Your task to perform on an android device: toggle improve location accuracy Image 0: 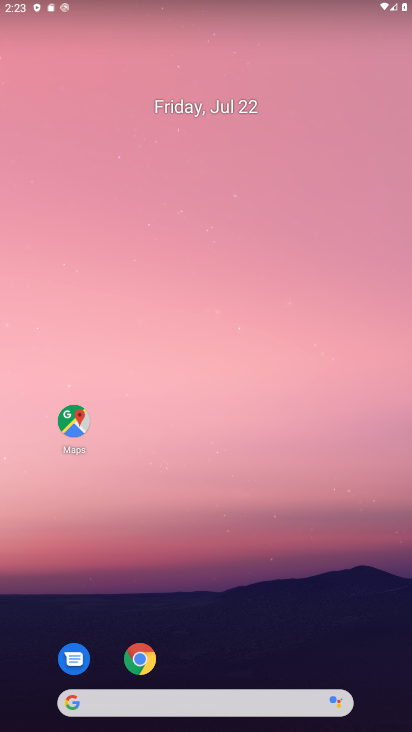
Step 0: drag from (277, 665) to (191, 0)
Your task to perform on an android device: toggle improve location accuracy Image 1: 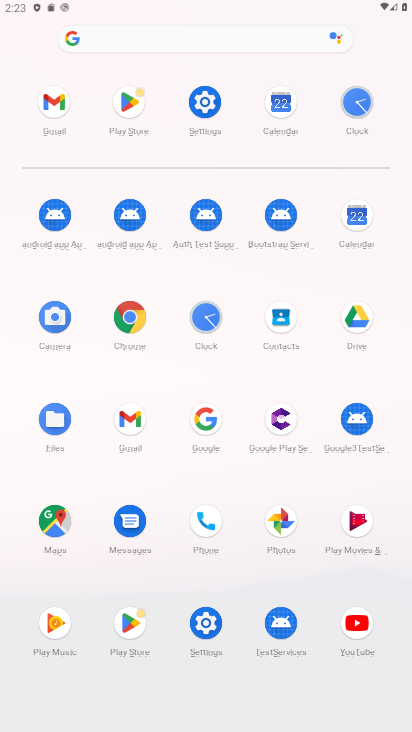
Step 1: click (205, 104)
Your task to perform on an android device: toggle improve location accuracy Image 2: 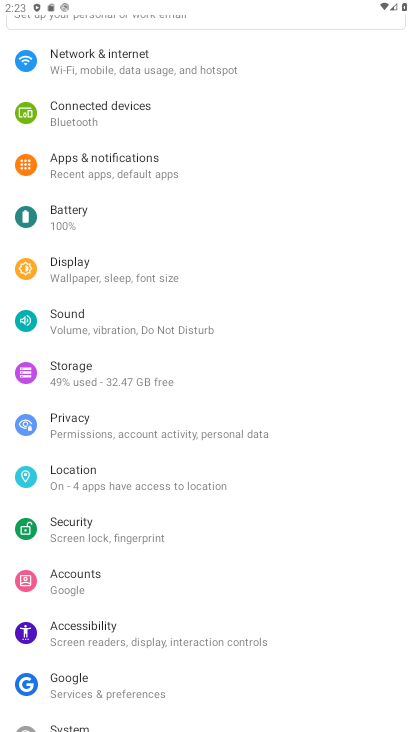
Step 2: click (122, 477)
Your task to perform on an android device: toggle improve location accuracy Image 3: 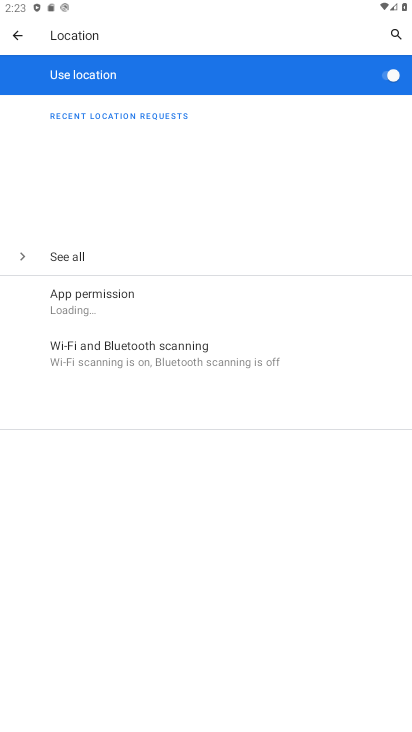
Step 3: task complete